Your task to perform on an android device: Go to wifi settings Image 0: 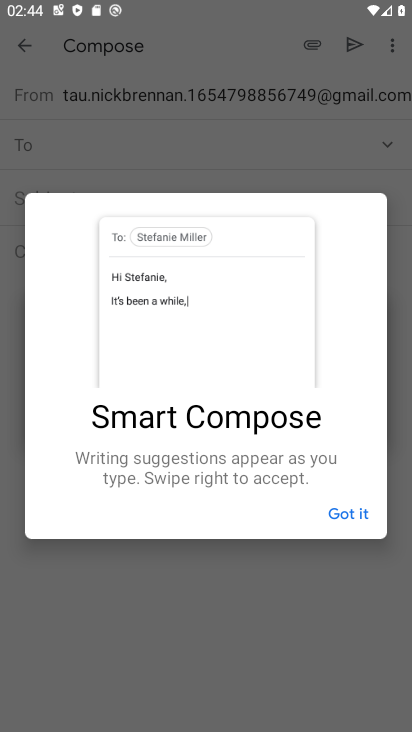
Step 0: press home button
Your task to perform on an android device: Go to wifi settings Image 1: 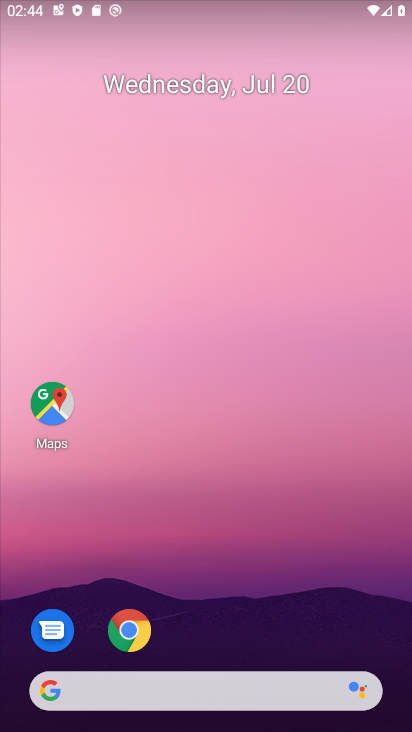
Step 1: drag from (363, 523) to (369, 73)
Your task to perform on an android device: Go to wifi settings Image 2: 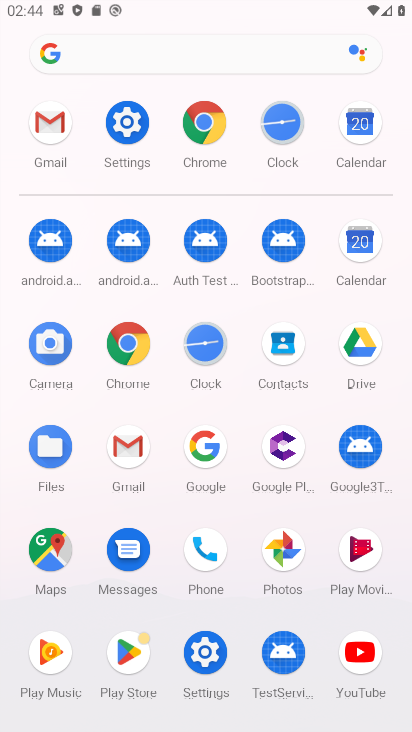
Step 2: click (125, 135)
Your task to perform on an android device: Go to wifi settings Image 3: 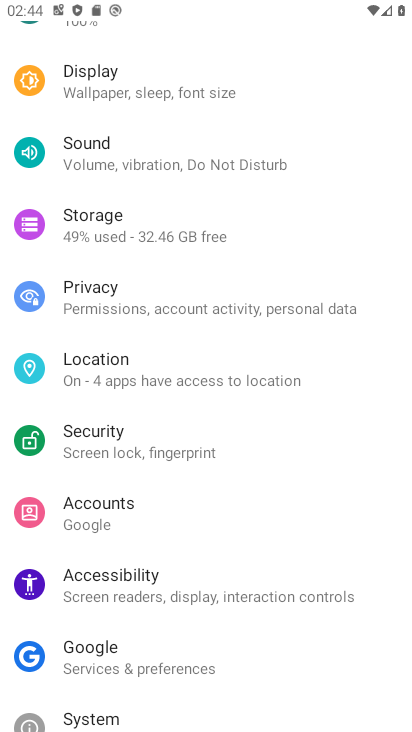
Step 3: drag from (340, 473) to (340, 349)
Your task to perform on an android device: Go to wifi settings Image 4: 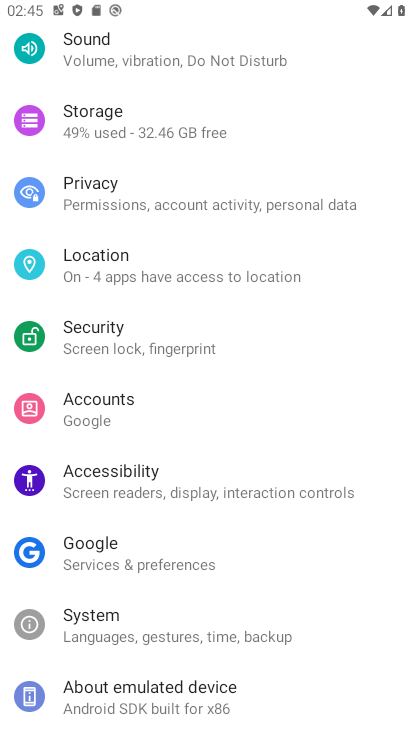
Step 4: drag from (332, 555) to (349, 401)
Your task to perform on an android device: Go to wifi settings Image 5: 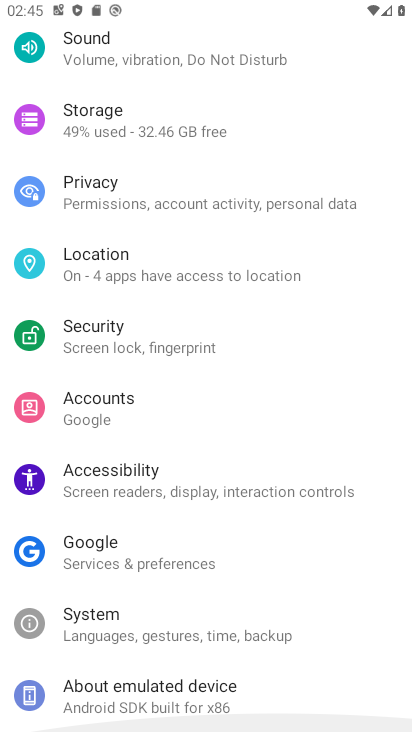
Step 5: drag from (344, 297) to (327, 450)
Your task to perform on an android device: Go to wifi settings Image 6: 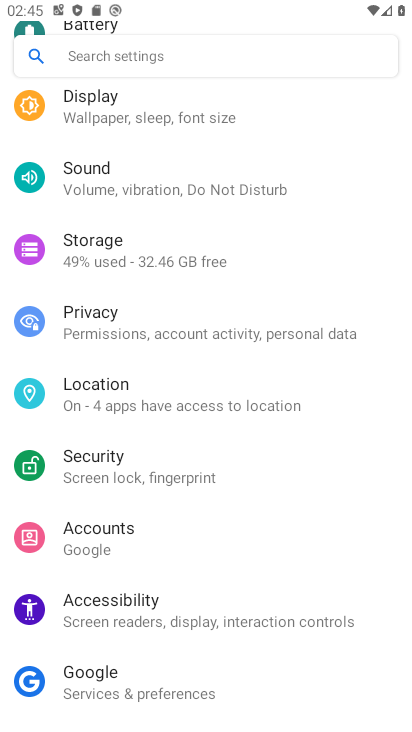
Step 6: drag from (326, 249) to (318, 375)
Your task to perform on an android device: Go to wifi settings Image 7: 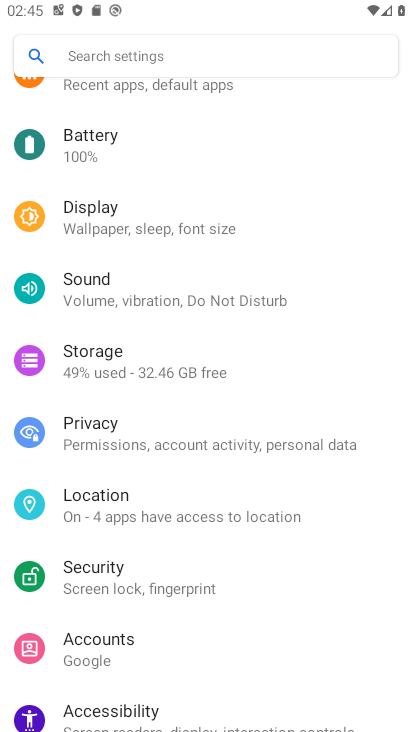
Step 7: drag from (336, 254) to (331, 372)
Your task to perform on an android device: Go to wifi settings Image 8: 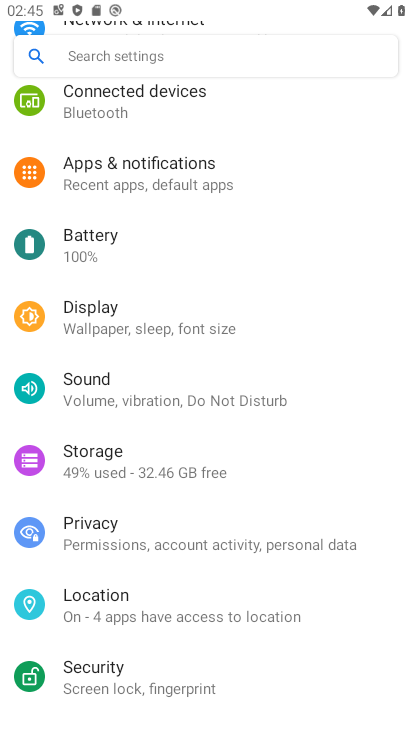
Step 8: drag from (344, 229) to (343, 361)
Your task to perform on an android device: Go to wifi settings Image 9: 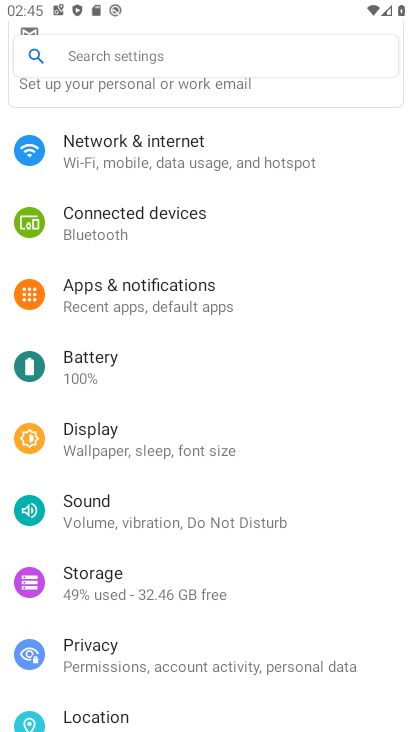
Step 9: drag from (342, 225) to (326, 378)
Your task to perform on an android device: Go to wifi settings Image 10: 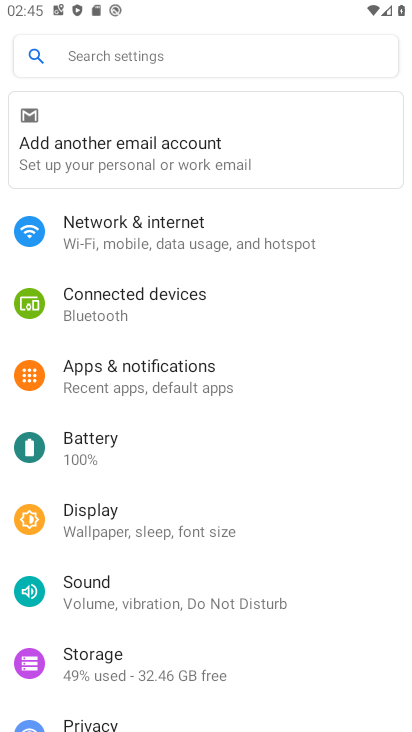
Step 10: drag from (330, 302) to (327, 384)
Your task to perform on an android device: Go to wifi settings Image 11: 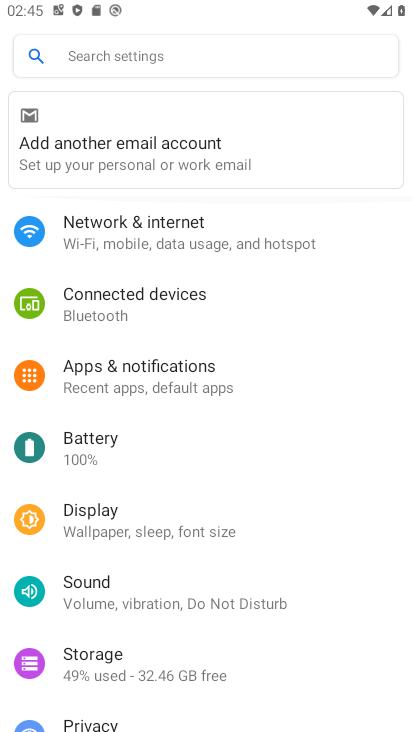
Step 11: click (284, 244)
Your task to perform on an android device: Go to wifi settings Image 12: 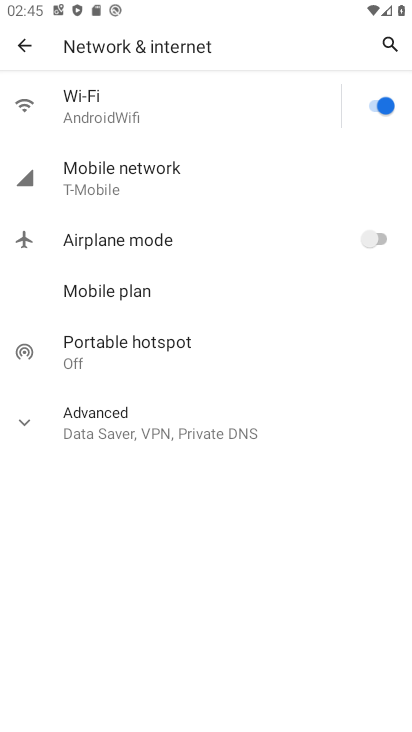
Step 12: click (90, 100)
Your task to perform on an android device: Go to wifi settings Image 13: 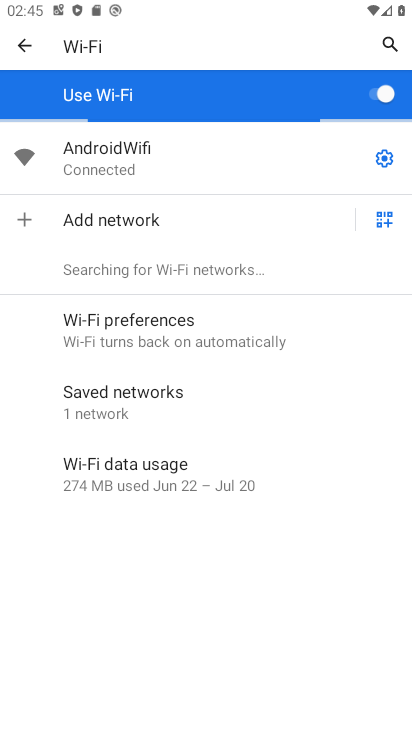
Step 13: task complete